Your task to perform on an android device: turn off smart reply in the gmail app Image 0: 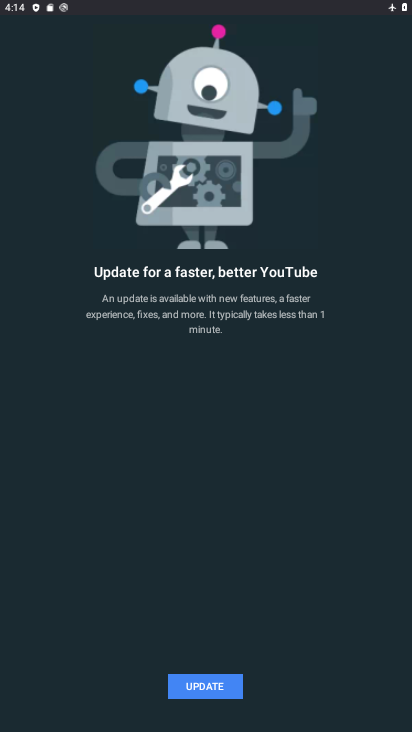
Step 0: press home button
Your task to perform on an android device: turn off smart reply in the gmail app Image 1: 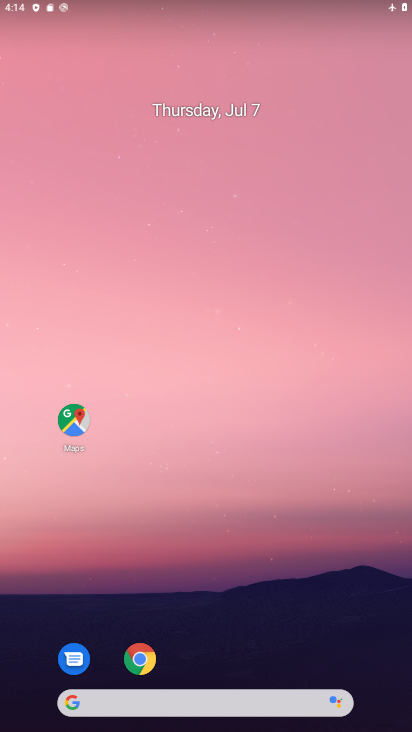
Step 1: drag from (336, 620) to (348, 125)
Your task to perform on an android device: turn off smart reply in the gmail app Image 2: 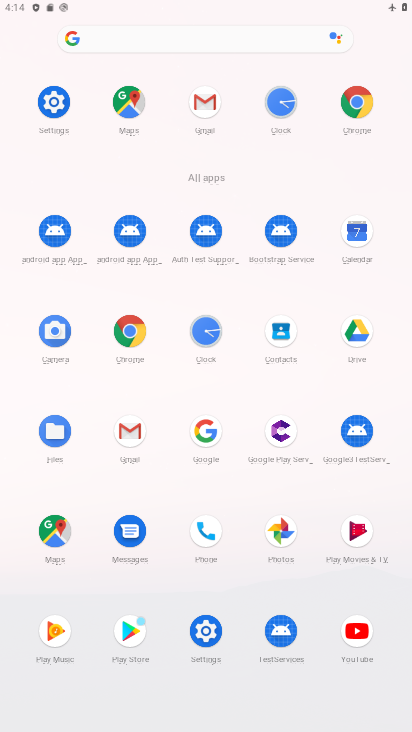
Step 2: click (141, 433)
Your task to perform on an android device: turn off smart reply in the gmail app Image 3: 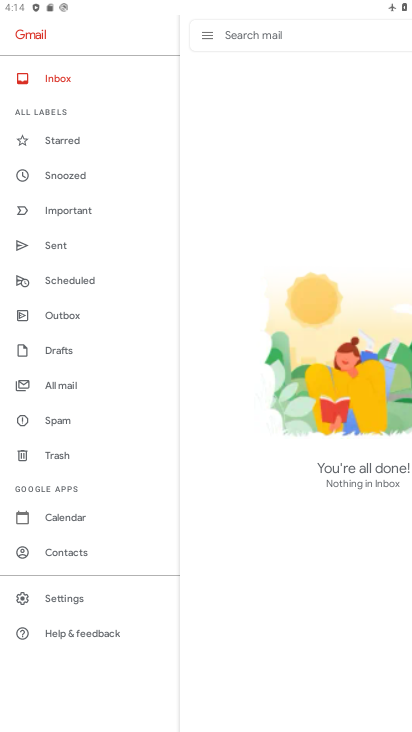
Step 3: click (86, 590)
Your task to perform on an android device: turn off smart reply in the gmail app Image 4: 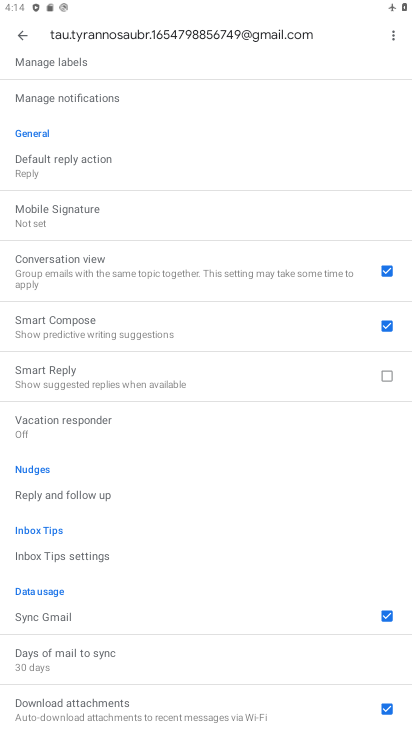
Step 4: task complete